Your task to perform on an android device: open app "Google Maps" Image 0: 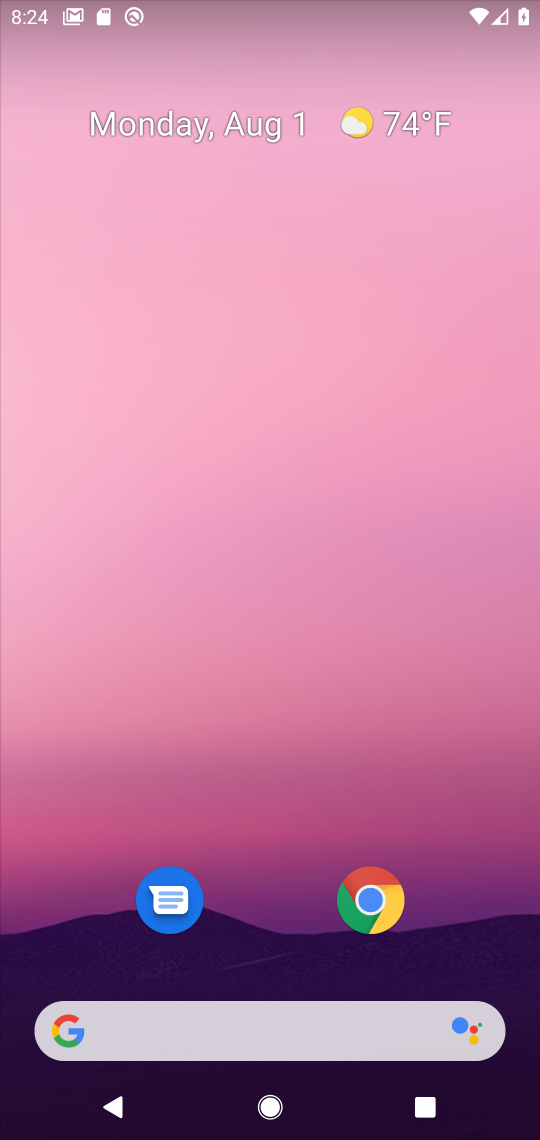
Step 0: drag from (269, 996) to (180, 334)
Your task to perform on an android device: open app "Google Maps" Image 1: 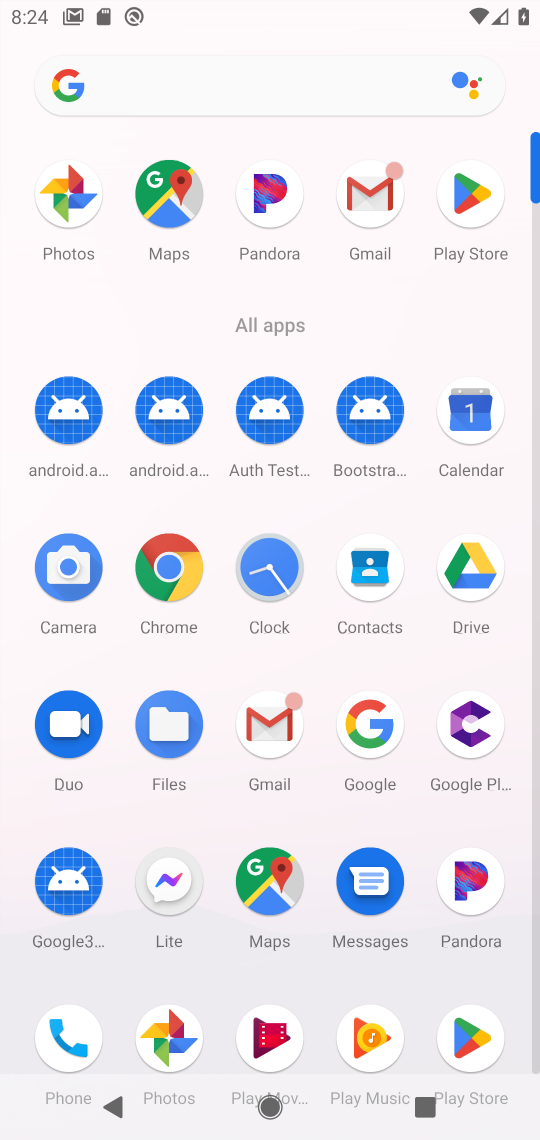
Step 1: click (466, 1025)
Your task to perform on an android device: open app "Google Maps" Image 2: 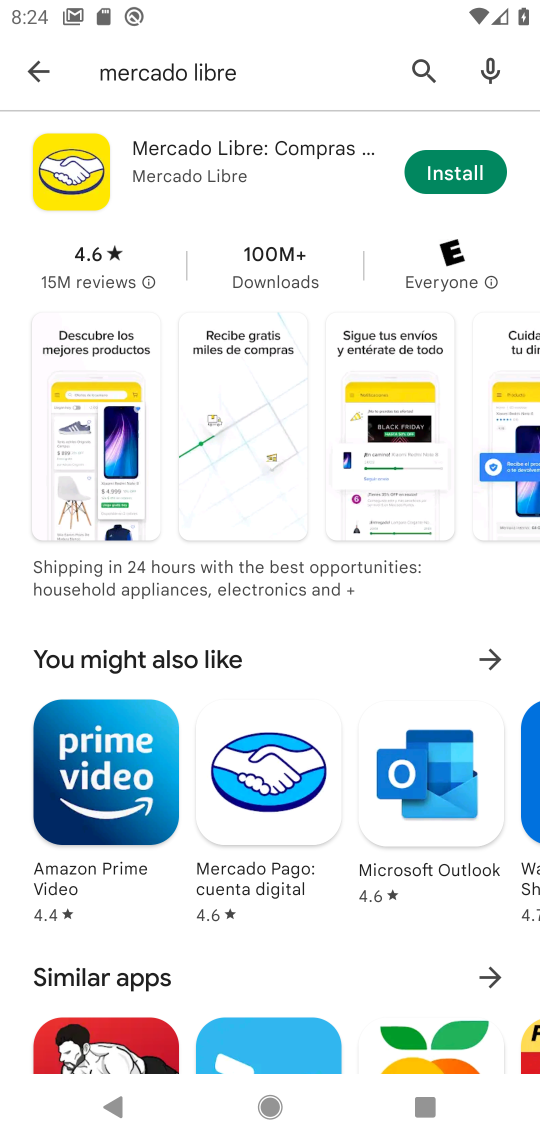
Step 2: click (31, 71)
Your task to perform on an android device: open app "Google Maps" Image 3: 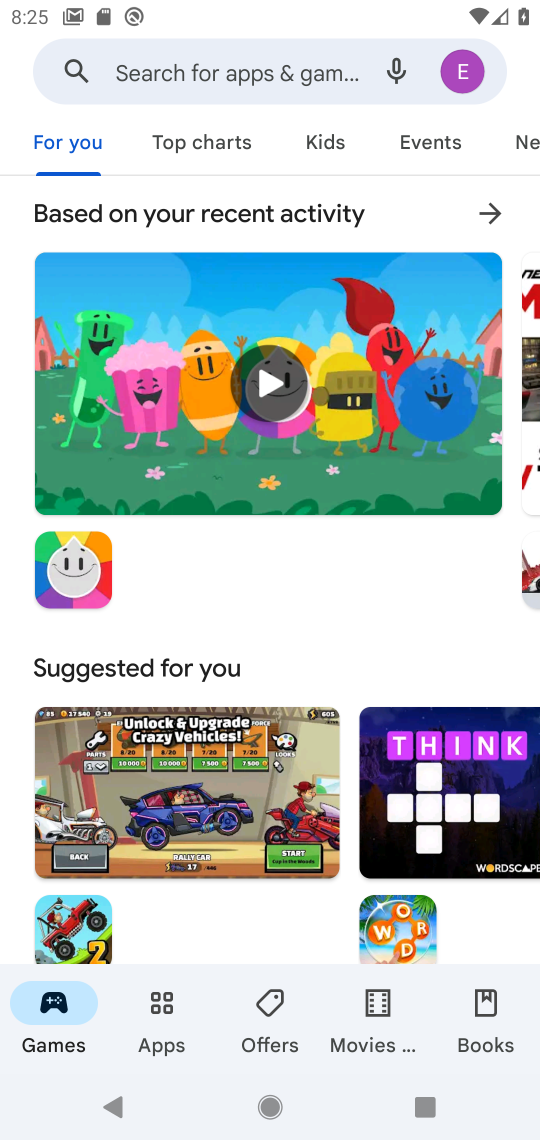
Step 3: click (124, 66)
Your task to perform on an android device: open app "Google Maps" Image 4: 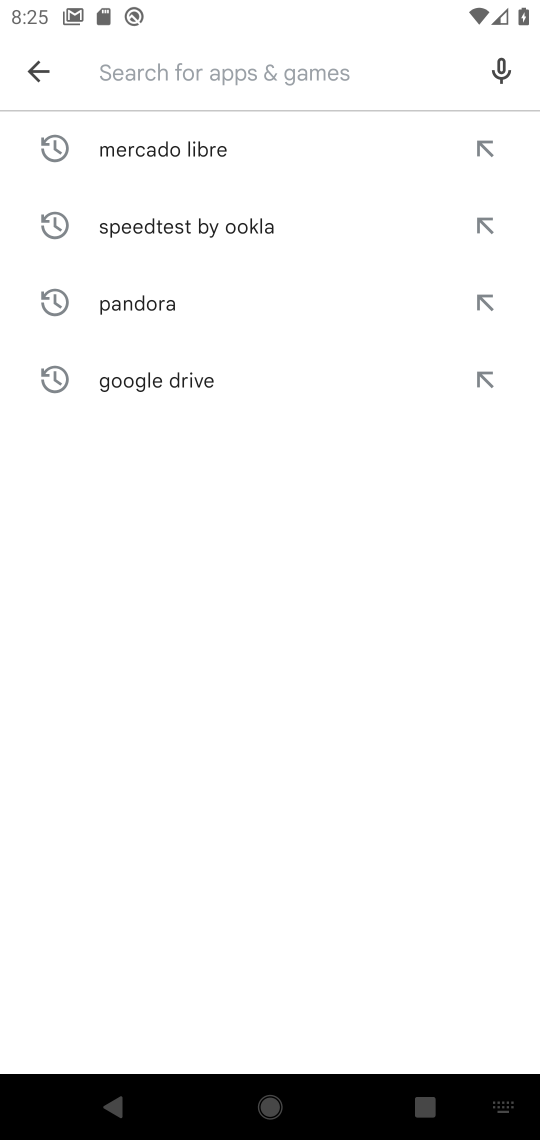
Step 4: type "Google Maps"
Your task to perform on an android device: open app "Google Maps" Image 5: 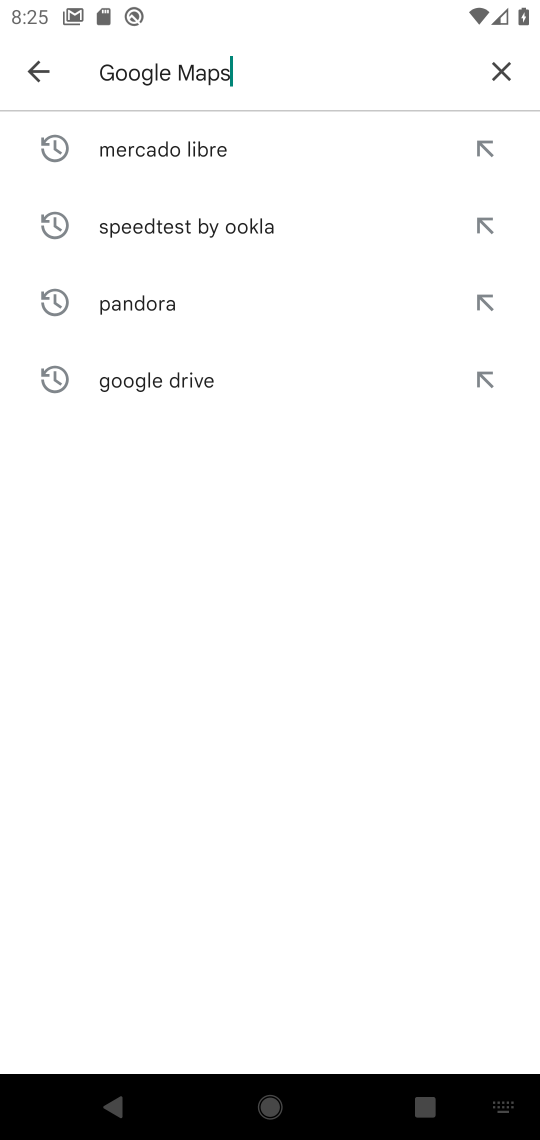
Step 5: type ""
Your task to perform on an android device: open app "Google Maps" Image 6: 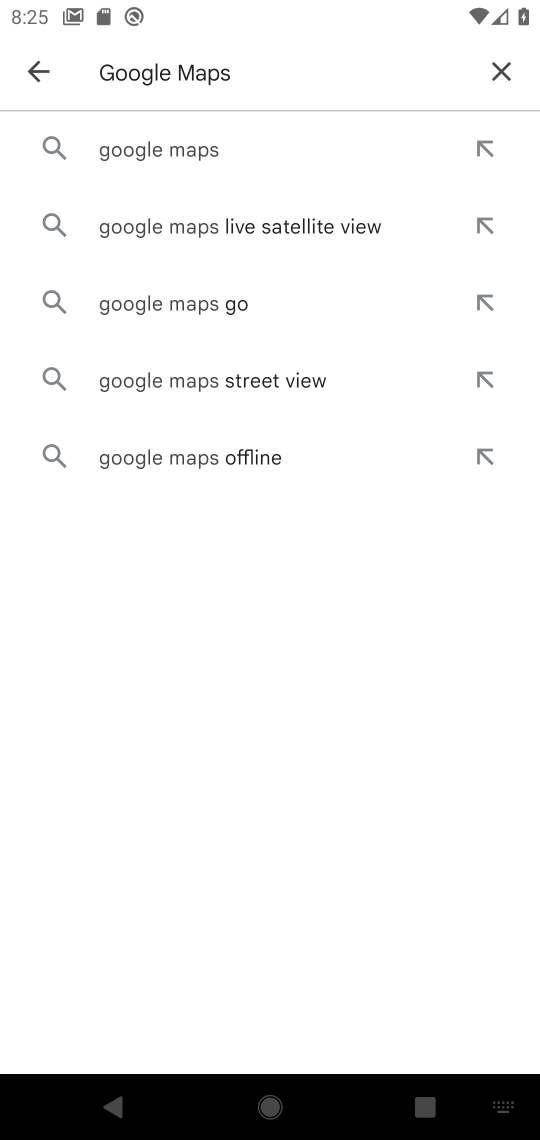
Step 6: click (148, 137)
Your task to perform on an android device: open app "Google Maps" Image 7: 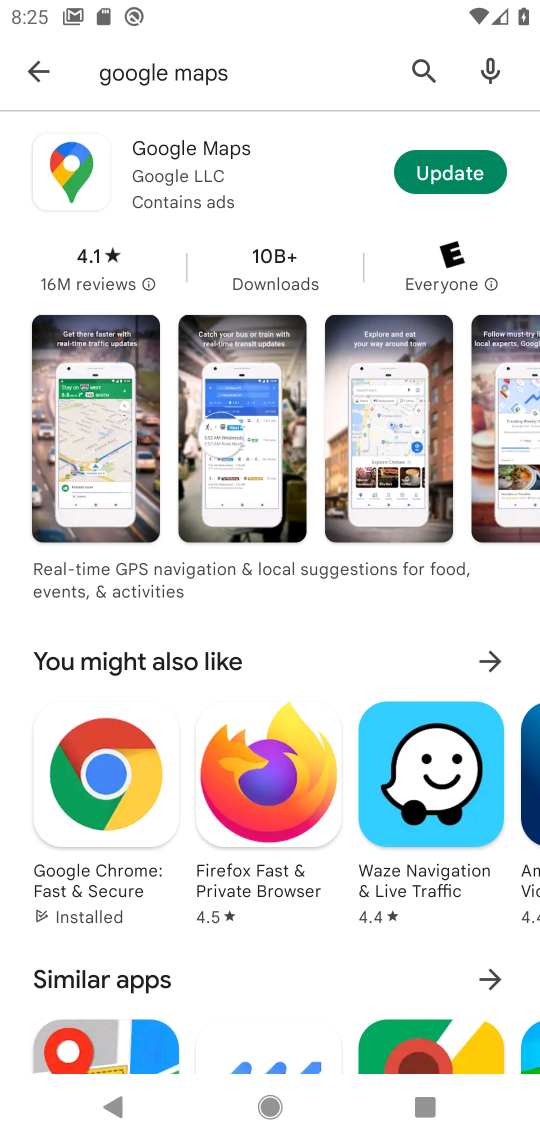
Step 7: click (436, 191)
Your task to perform on an android device: open app "Google Maps" Image 8: 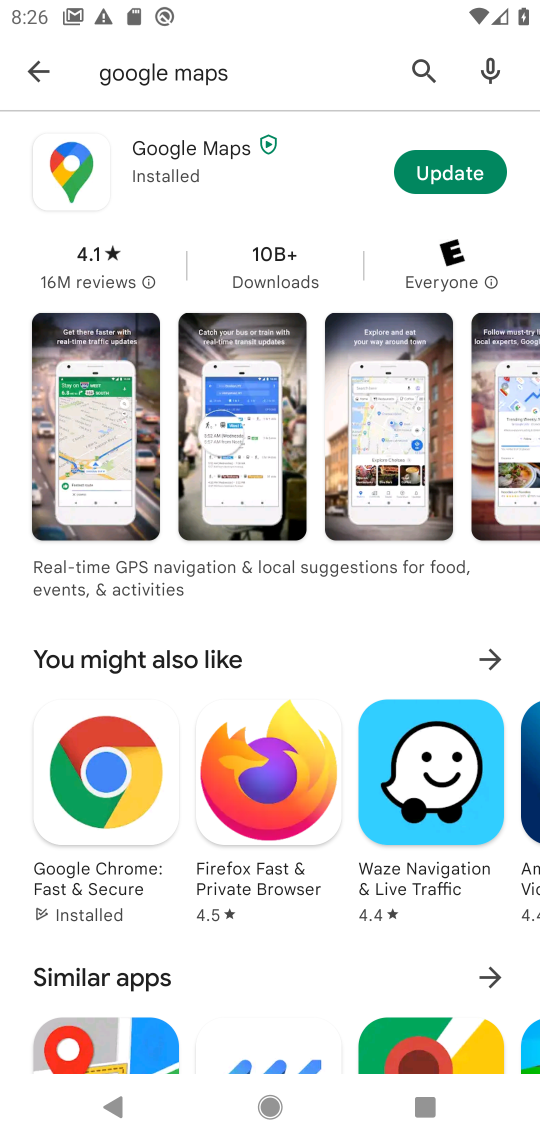
Step 8: click (151, 148)
Your task to perform on an android device: open app "Google Maps" Image 9: 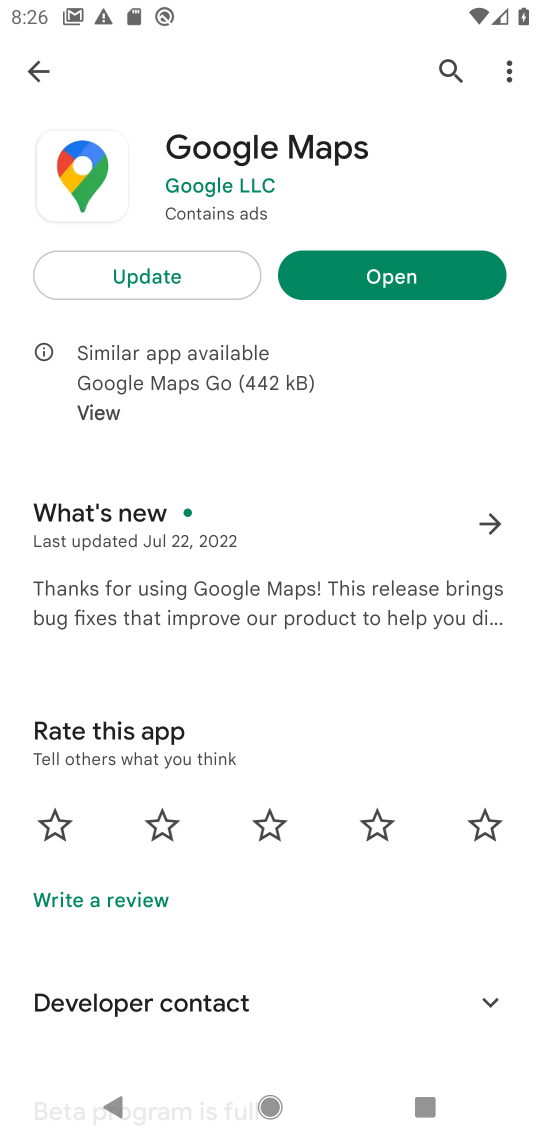
Step 9: click (384, 265)
Your task to perform on an android device: open app "Google Maps" Image 10: 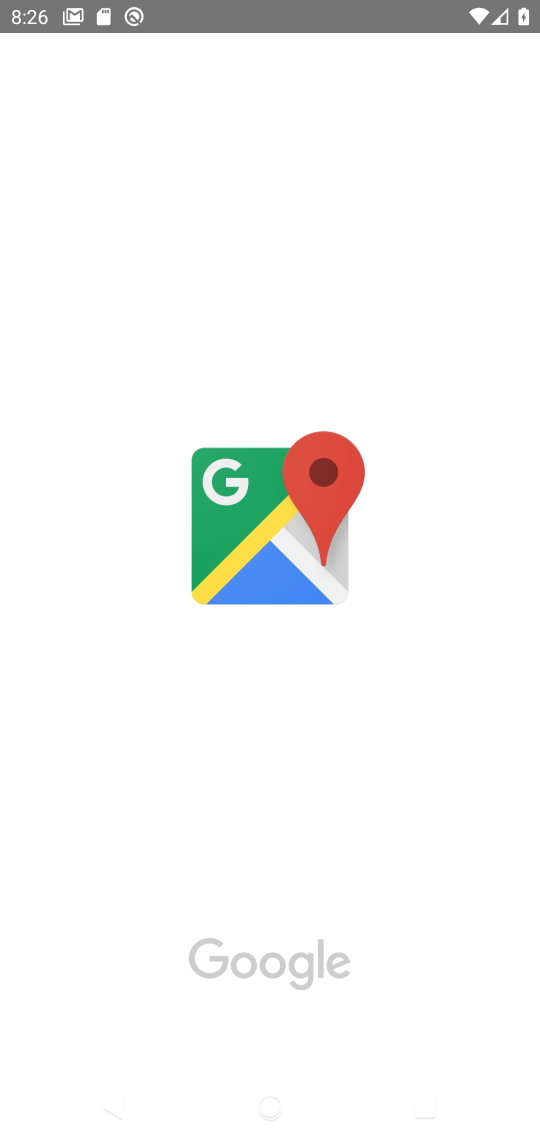
Step 10: task complete